Your task to perform on an android device: check the backup settings in the google photos Image 0: 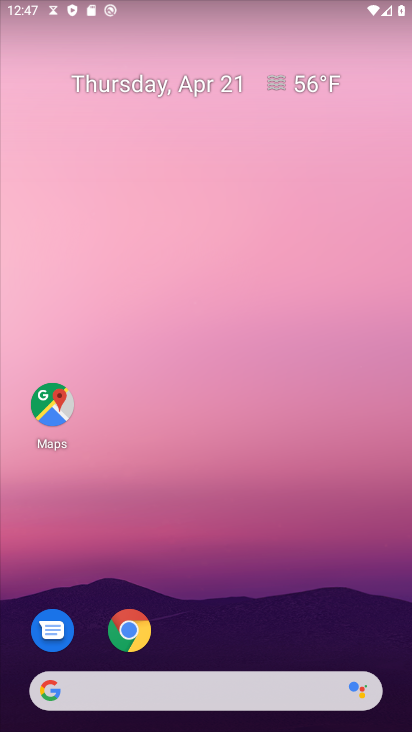
Step 0: drag from (220, 692) to (236, 48)
Your task to perform on an android device: check the backup settings in the google photos Image 1: 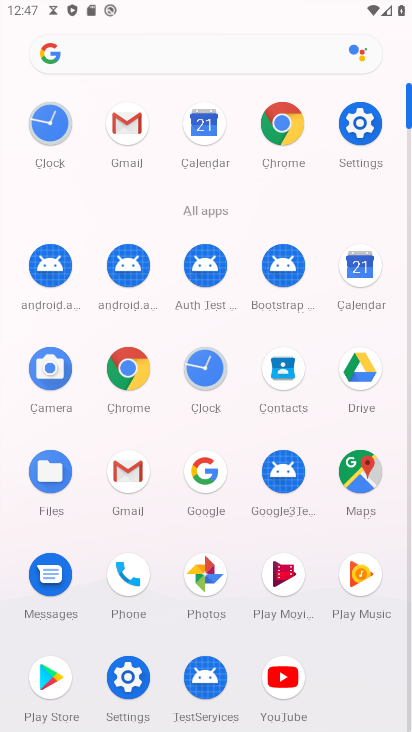
Step 1: click (209, 592)
Your task to perform on an android device: check the backup settings in the google photos Image 2: 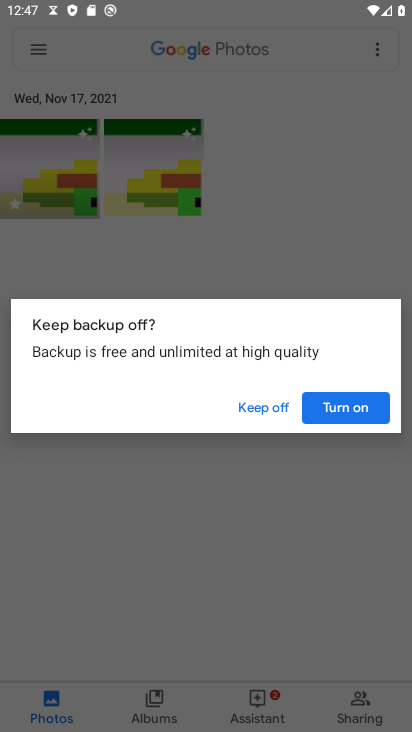
Step 2: click (333, 410)
Your task to perform on an android device: check the backup settings in the google photos Image 3: 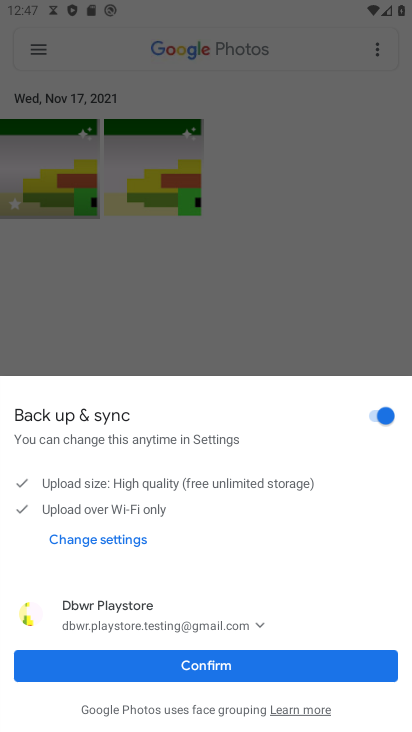
Step 3: click (209, 664)
Your task to perform on an android device: check the backup settings in the google photos Image 4: 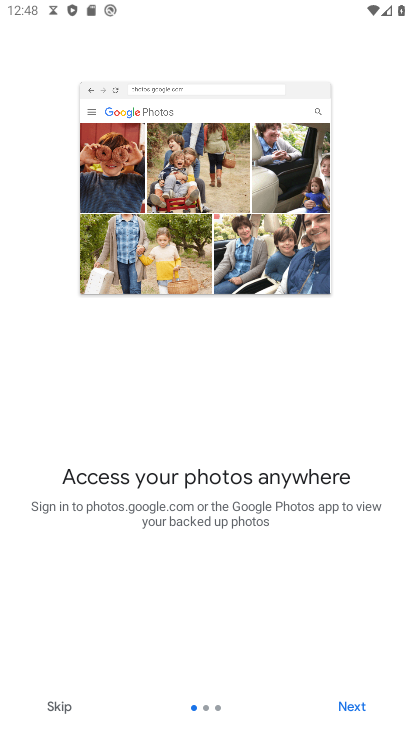
Step 4: click (64, 706)
Your task to perform on an android device: check the backup settings in the google photos Image 5: 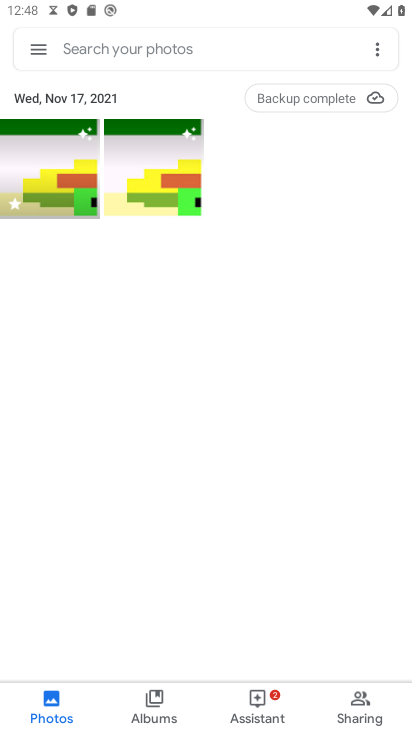
Step 5: click (35, 46)
Your task to perform on an android device: check the backup settings in the google photos Image 6: 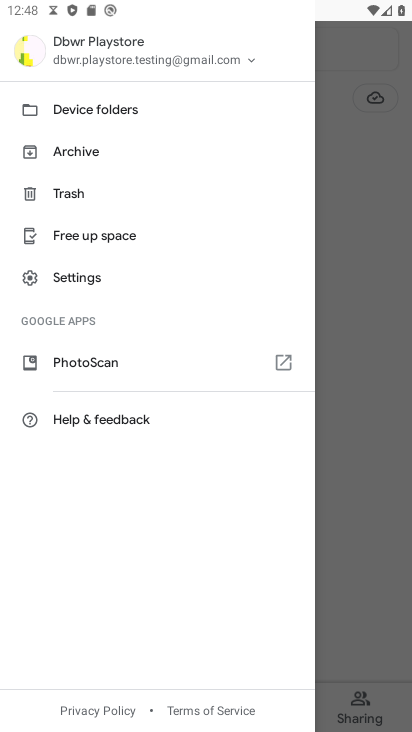
Step 6: click (63, 279)
Your task to perform on an android device: check the backup settings in the google photos Image 7: 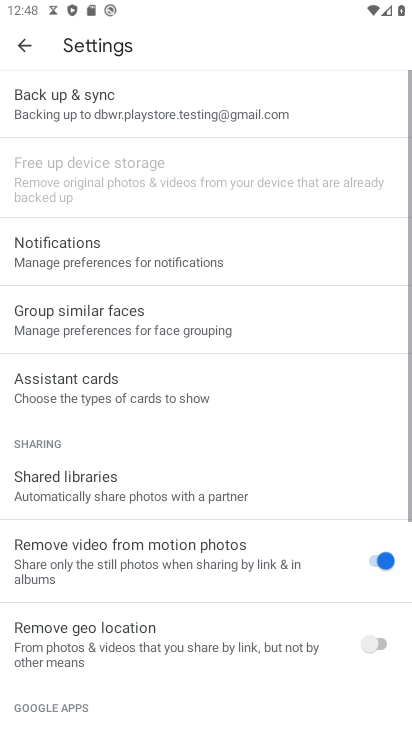
Step 7: click (80, 114)
Your task to perform on an android device: check the backup settings in the google photos Image 8: 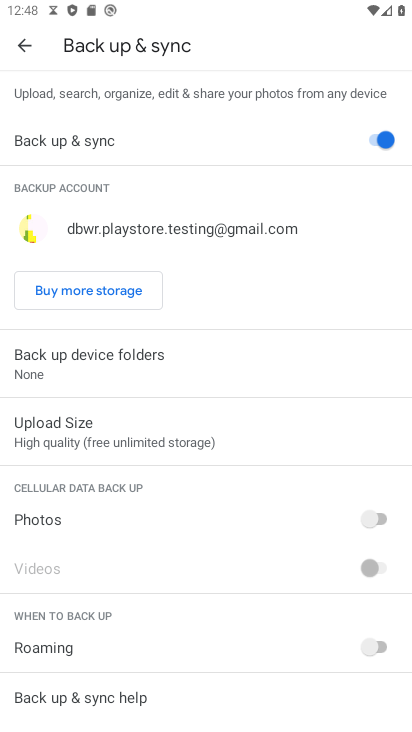
Step 8: task complete